Your task to perform on an android device: change keyboard looks Image 0: 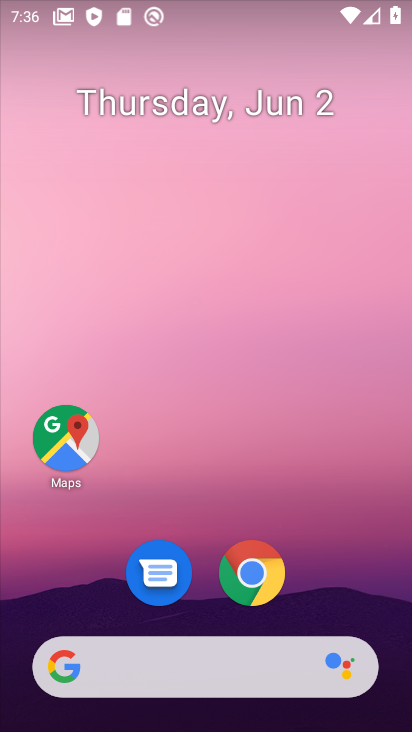
Step 0: drag from (343, 563) to (199, 0)
Your task to perform on an android device: change keyboard looks Image 1: 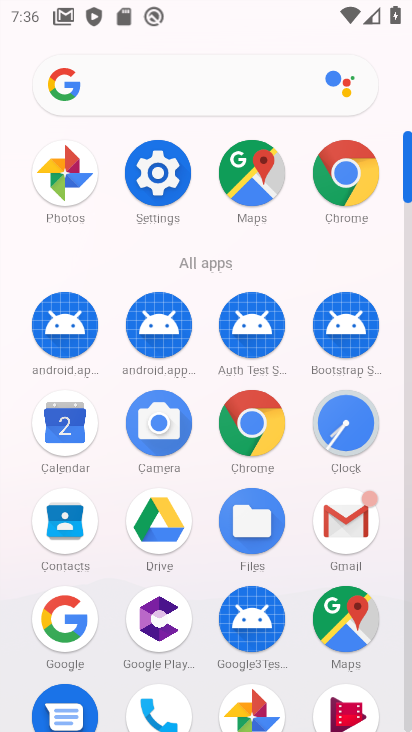
Step 1: click (155, 188)
Your task to perform on an android device: change keyboard looks Image 2: 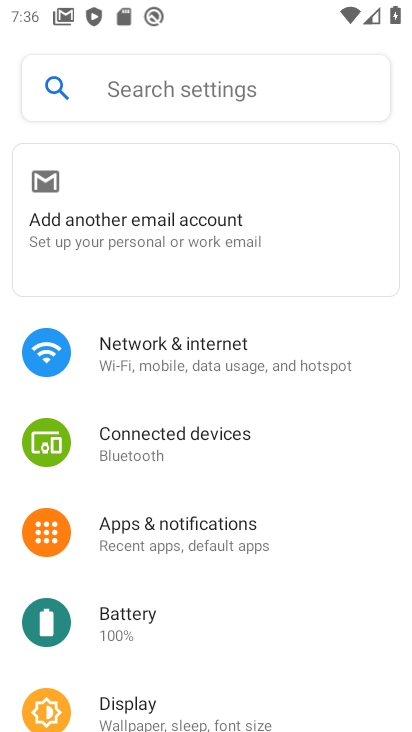
Step 2: drag from (220, 528) to (317, 46)
Your task to perform on an android device: change keyboard looks Image 3: 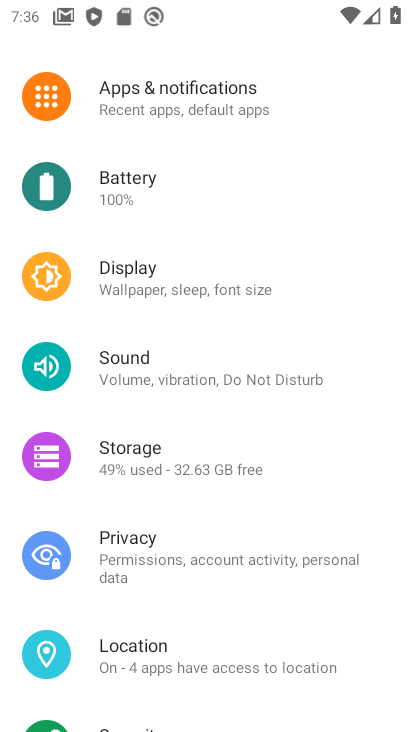
Step 3: drag from (247, 539) to (240, 50)
Your task to perform on an android device: change keyboard looks Image 4: 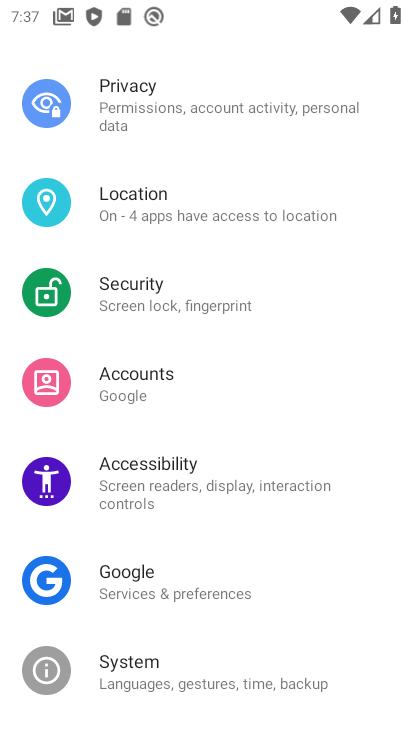
Step 4: drag from (223, 531) to (279, 39)
Your task to perform on an android device: change keyboard looks Image 5: 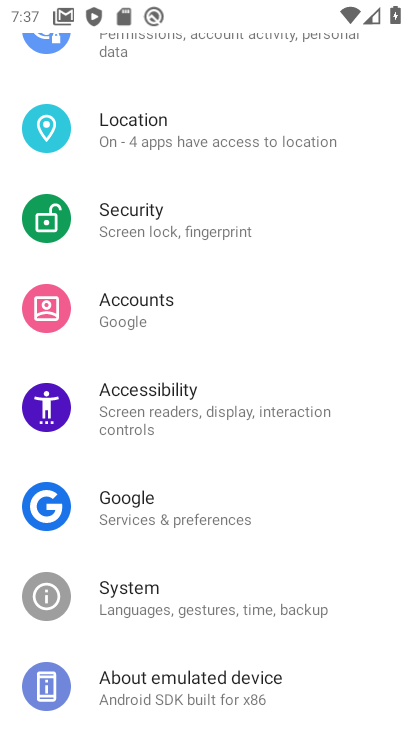
Step 5: click (201, 610)
Your task to perform on an android device: change keyboard looks Image 6: 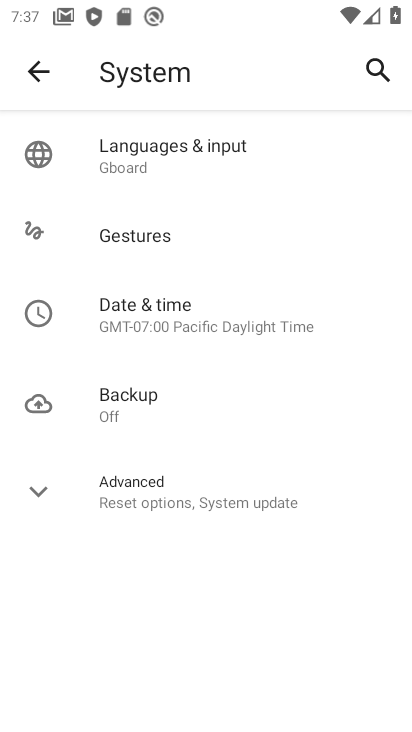
Step 6: click (167, 164)
Your task to perform on an android device: change keyboard looks Image 7: 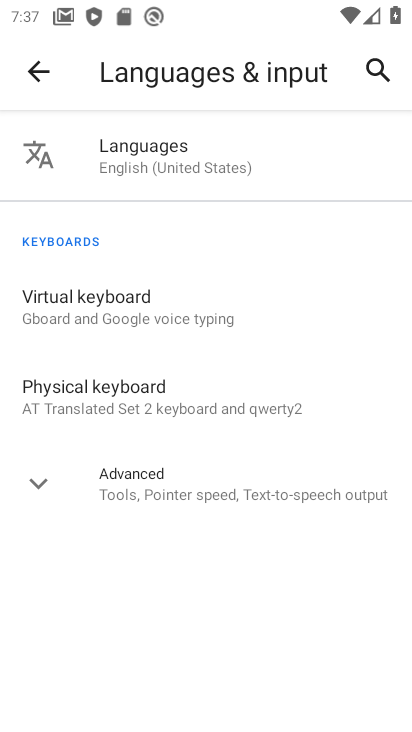
Step 7: click (49, 319)
Your task to perform on an android device: change keyboard looks Image 8: 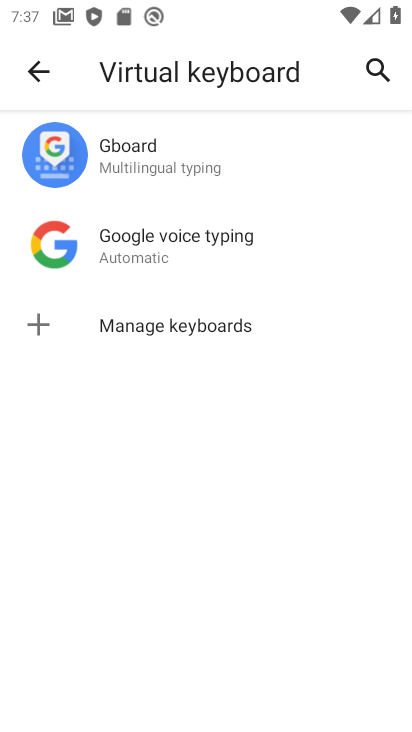
Step 8: click (147, 149)
Your task to perform on an android device: change keyboard looks Image 9: 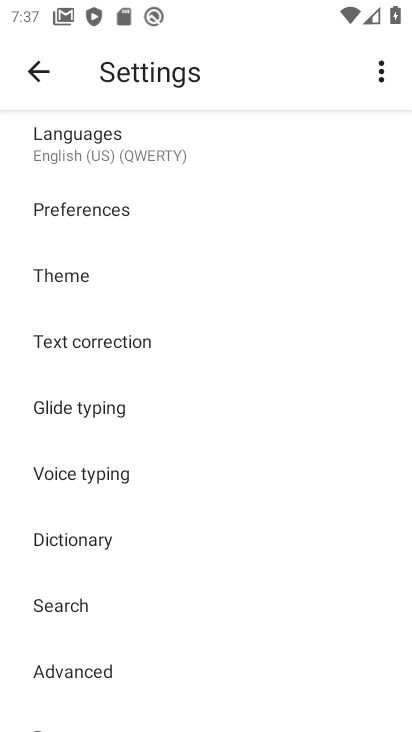
Step 9: click (77, 280)
Your task to perform on an android device: change keyboard looks Image 10: 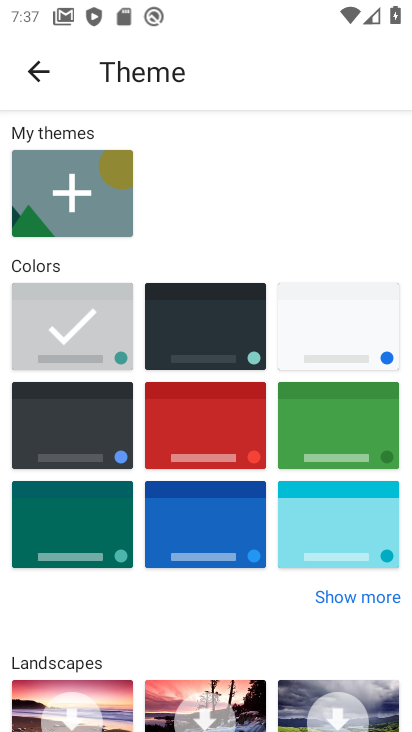
Step 10: click (184, 343)
Your task to perform on an android device: change keyboard looks Image 11: 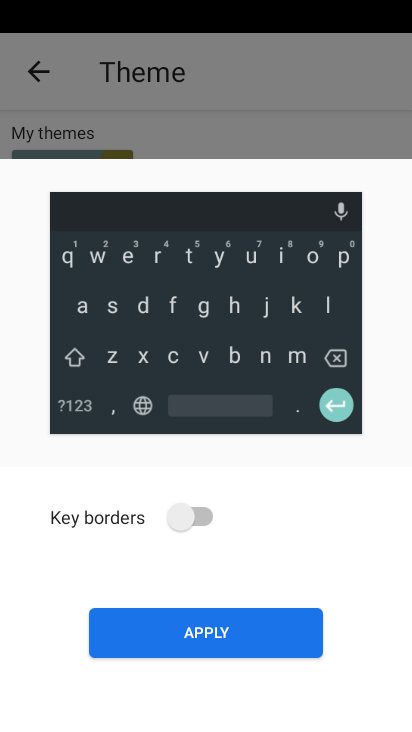
Step 11: click (177, 624)
Your task to perform on an android device: change keyboard looks Image 12: 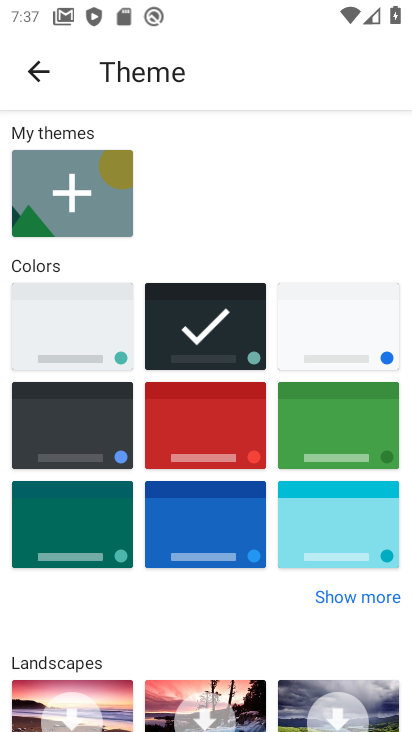
Step 12: task complete